Your task to perform on an android device: Check the weather Image 0: 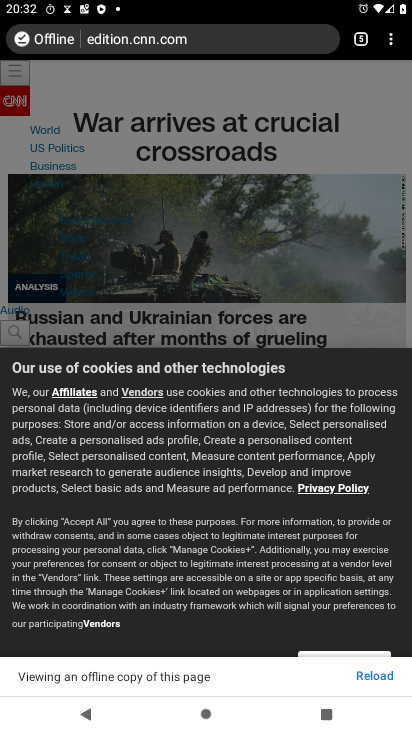
Step 0: press home button
Your task to perform on an android device: Check the weather Image 1: 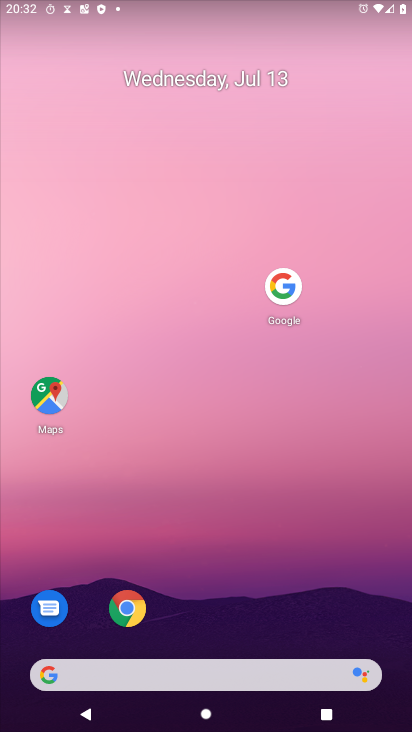
Step 1: click (219, 685)
Your task to perform on an android device: Check the weather Image 2: 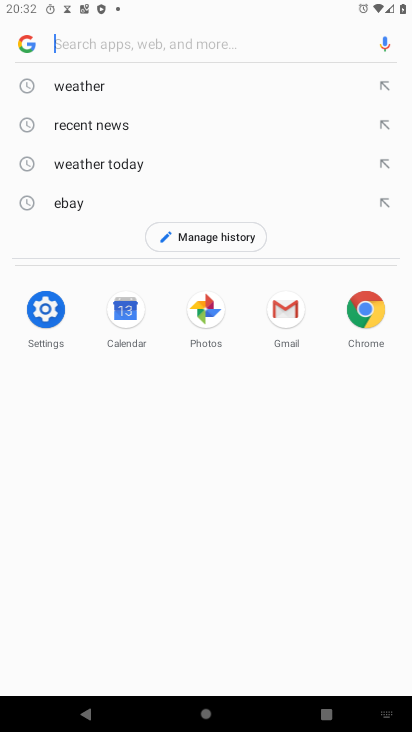
Step 2: click (69, 84)
Your task to perform on an android device: Check the weather Image 3: 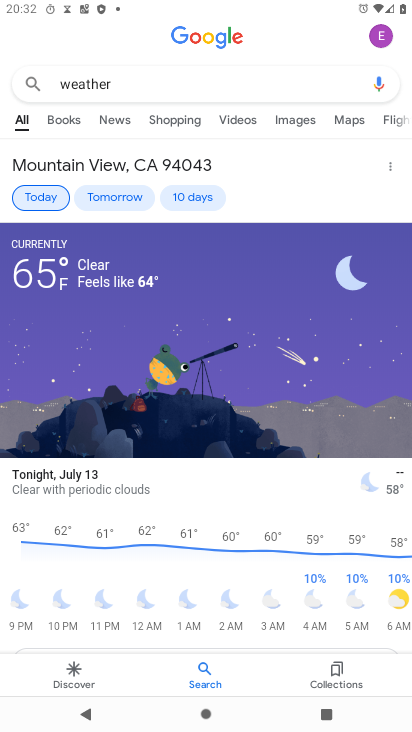
Step 3: task complete